Your task to perform on an android device: What's the weather today? Image 0: 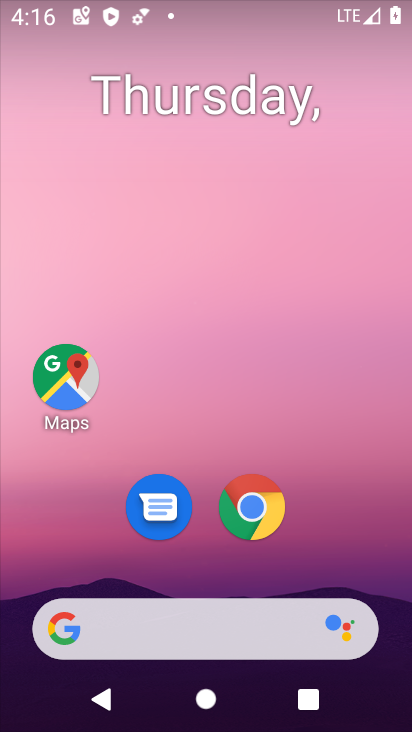
Step 0: press home button
Your task to perform on an android device: What's the weather today? Image 1: 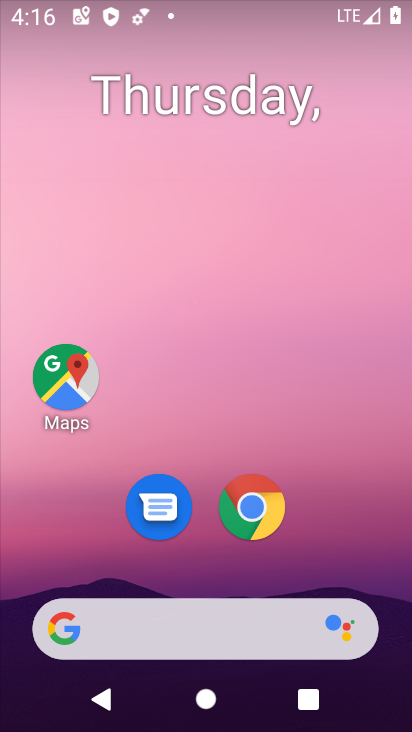
Step 1: click (230, 495)
Your task to perform on an android device: What's the weather today? Image 2: 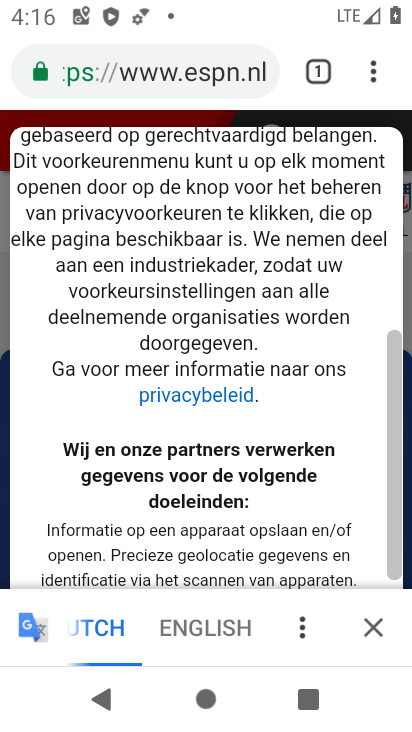
Step 2: click (174, 70)
Your task to perform on an android device: What's the weather today? Image 3: 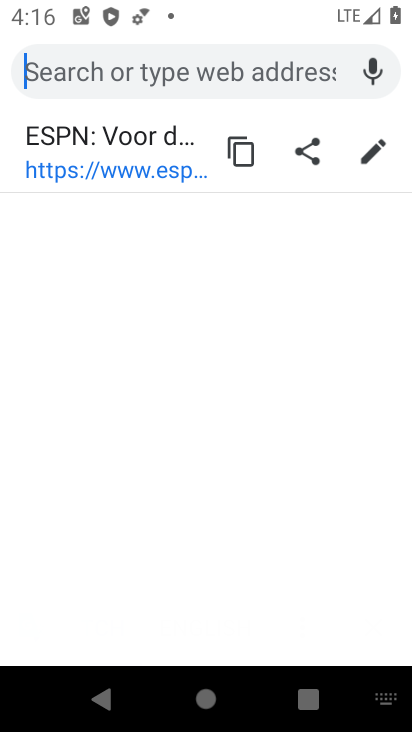
Step 3: type "What's the weather today?"
Your task to perform on an android device: What's the weather today? Image 4: 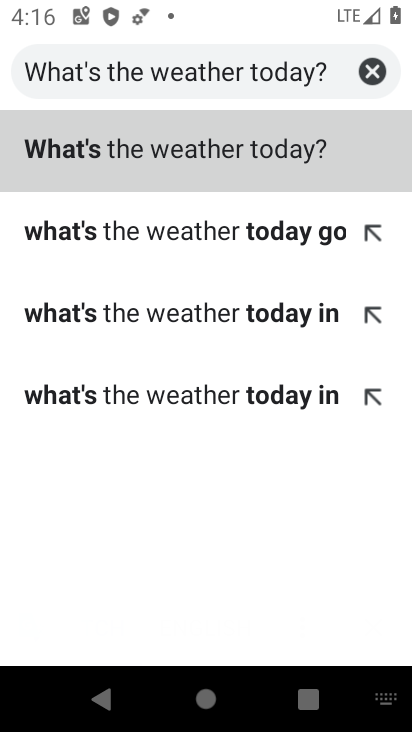
Step 4: click (122, 153)
Your task to perform on an android device: What's the weather today? Image 5: 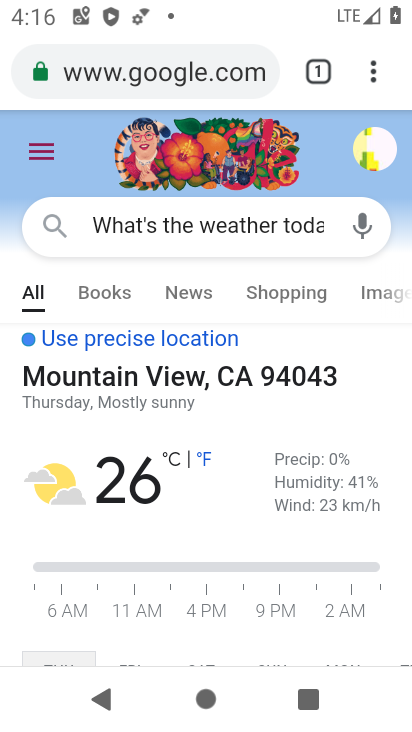
Step 5: task complete